Your task to perform on an android device: Open Chrome and go to the settings page Image 0: 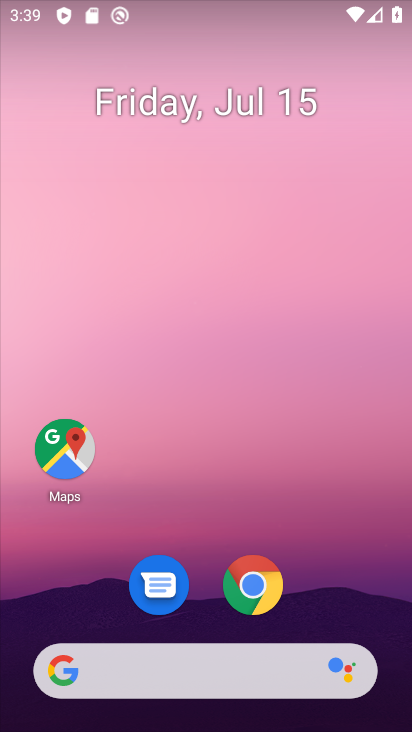
Step 0: click (261, 582)
Your task to perform on an android device: Open Chrome and go to the settings page Image 1: 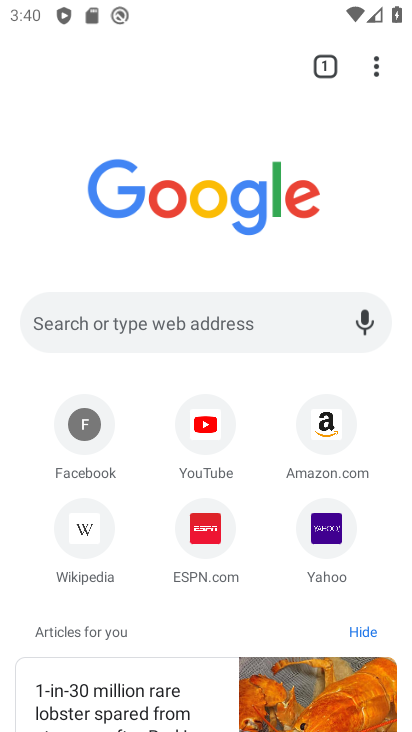
Step 1: click (376, 58)
Your task to perform on an android device: Open Chrome and go to the settings page Image 2: 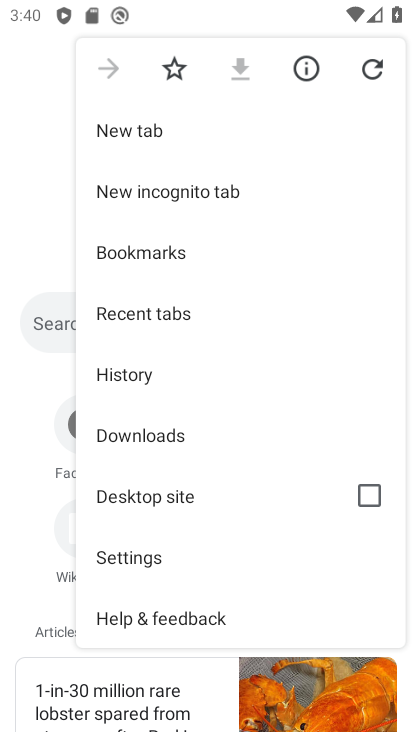
Step 2: click (144, 555)
Your task to perform on an android device: Open Chrome and go to the settings page Image 3: 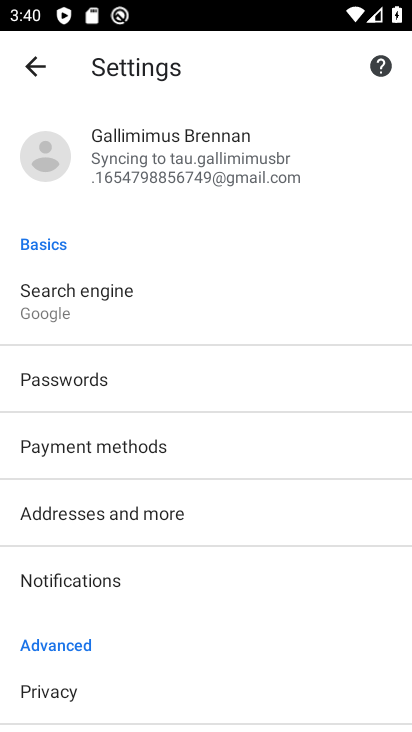
Step 3: task complete